Your task to perform on an android device: What's on my calendar today? Image 0: 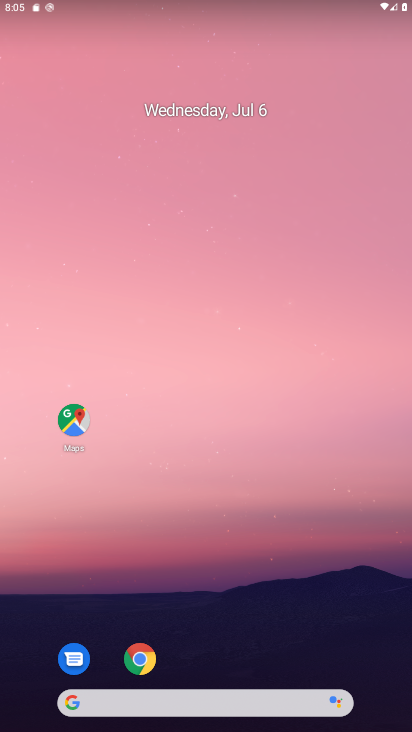
Step 0: click (234, 116)
Your task to perform on an android device: What's on my calendar today? Image 1: 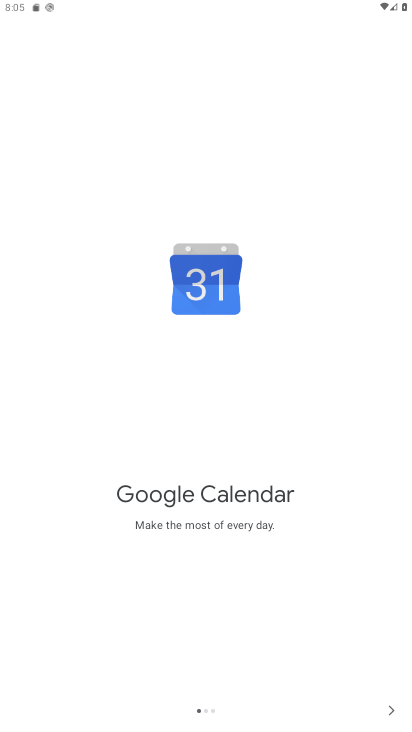
Step 1: click (395, 706)
Your task to perform on an android device: What's on my calendar today? Image 2: 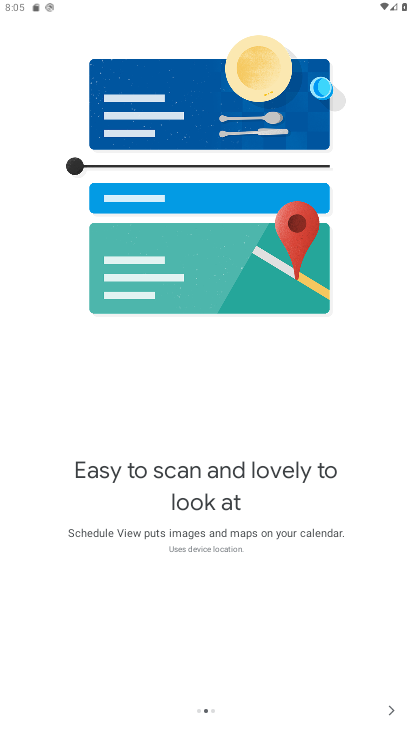
Step 2: click (395, 706)
Your task to perform on an android device: What's on my calendar today? Image 3: 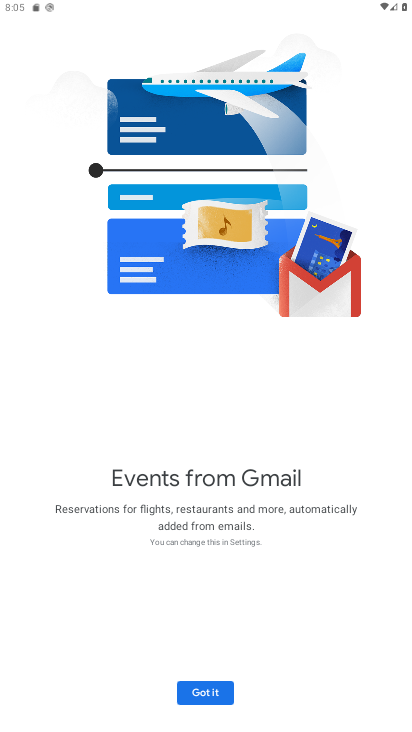
Step 3: click (183, 683)
Your task to perform on an android device: What's on my calendar today? Image 4: 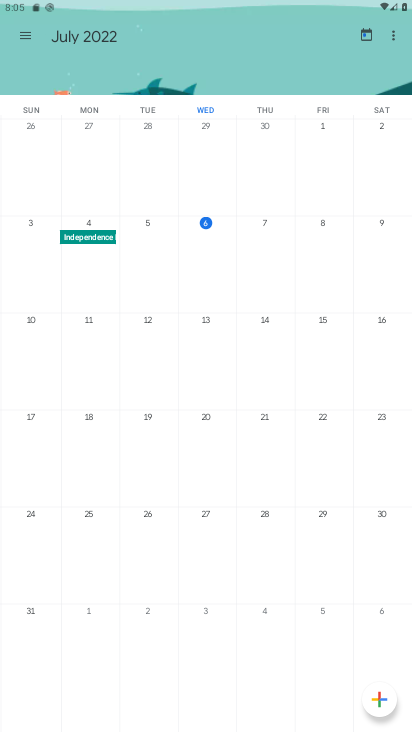
Step 4: click (212, 255)
Your task to perform on an android device: What's on my calendar today? Image 5: 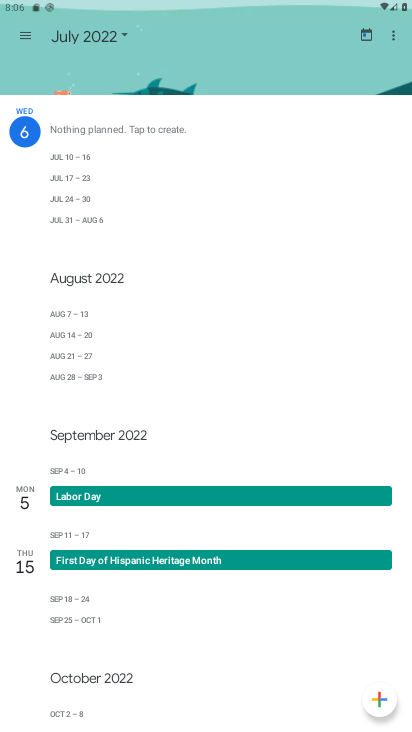
Step 5: task complete